Your task to perform on an android device: Search for pizza restaurants on Maps Image 0: 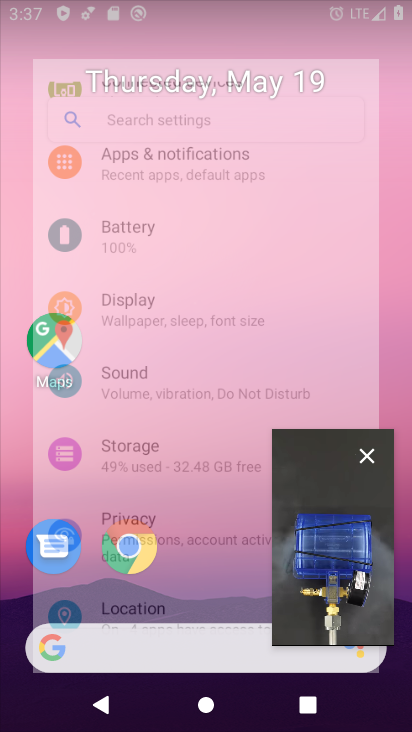
Step 0: press home button
Your task to perform on an android device: Search for pizza restaurants on Maps Image 1: 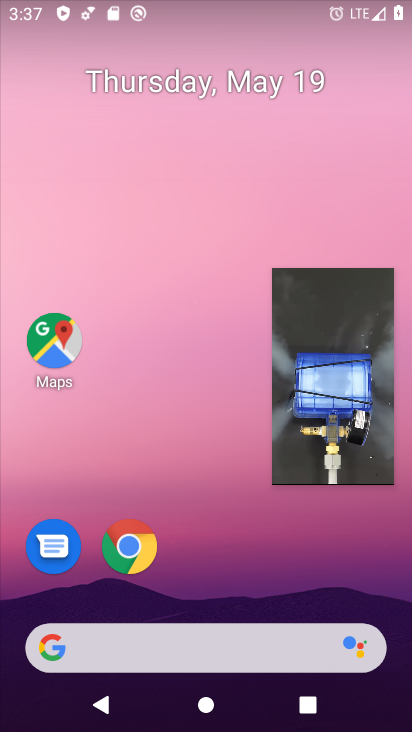
Step 1: click (326, 324)
Your task to perform on an android device: Search for pizza restaurants on Maps Image 2: 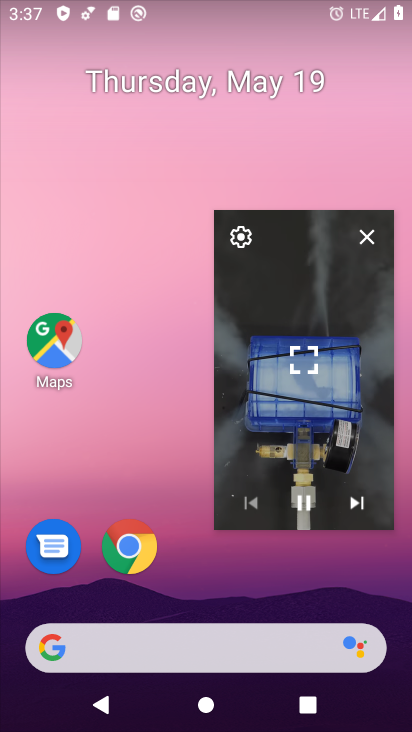
Step 2: click (363, 232)
Your task to perform on an android device: Search for pizza restaurants on Maps Image 3: 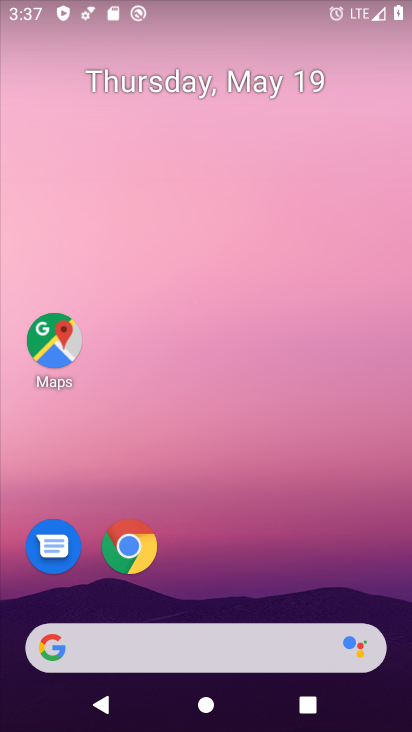
Step 3: click (52, 333)
Your task to perform on an android device: Search for pizza restaurants on Maps Image 4: 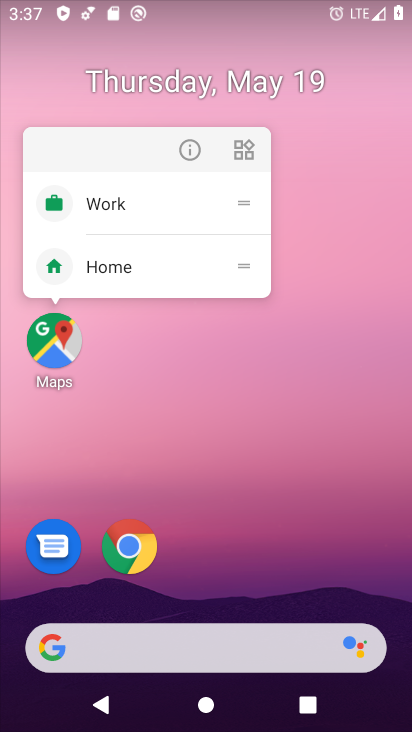
Step 4: click (53, 335)
Your task to perform on an android device: Search for pizza restaurants on Maps Image 5: 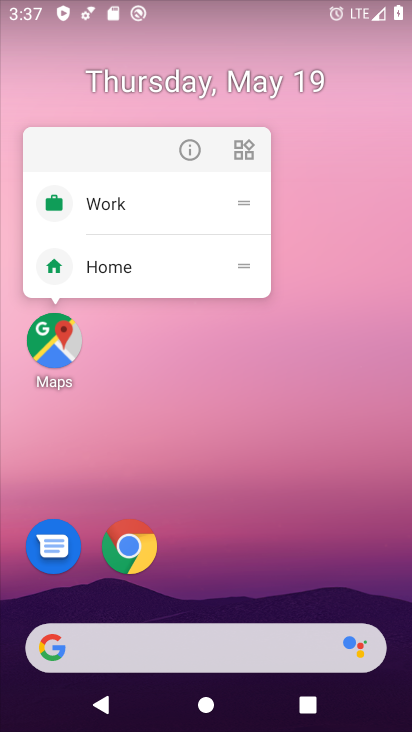
Step 5: click (53, 332)
Your task to perform on an android device: Search for pizza restaurants on Maps Image 6: 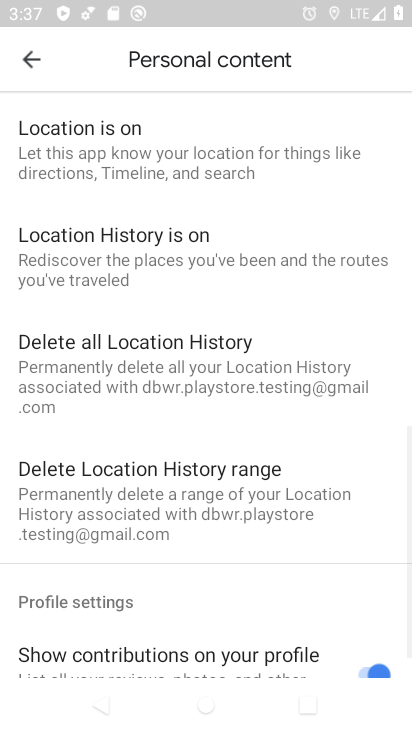
Step 6: click (31, 64)
Your task to perform on an android device: Search for pizza restaurants on Maps Image 7: 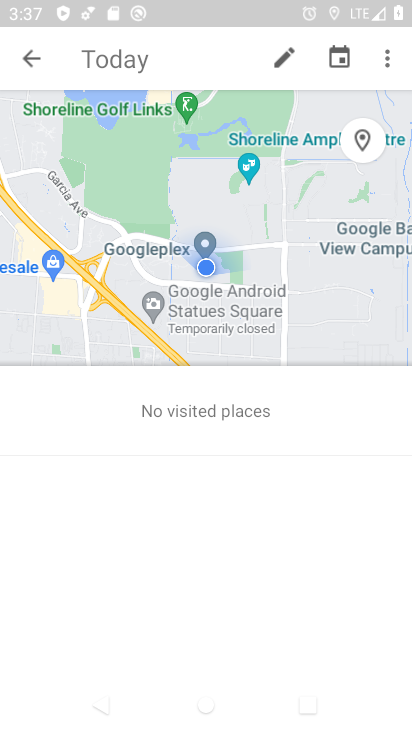
Step 7: click (31, 64)
Your task to perform on an android device: Search for pizza restaurants on Maps Image 8: 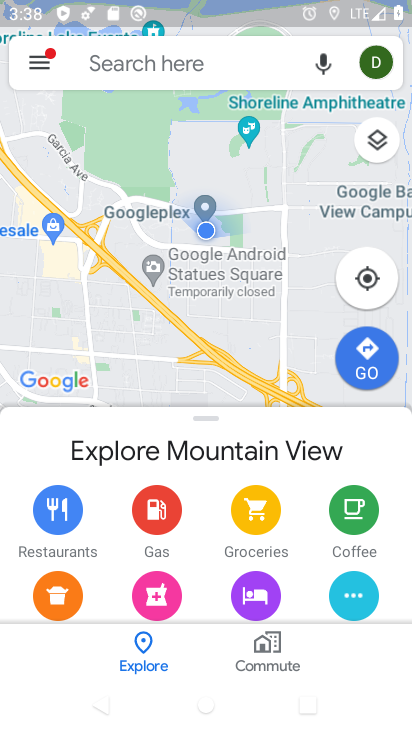
Step 8: click (128, 63)
Your task to perform on an android device: Search for pizza restaurants on Maps Image 9: 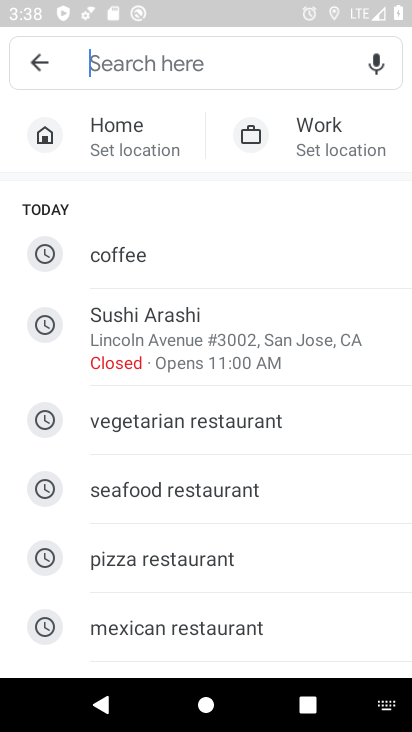
Step 9: click (187, 561)
Your task to perform on an android device: Search for pizza restaurants on Maps Image 10: 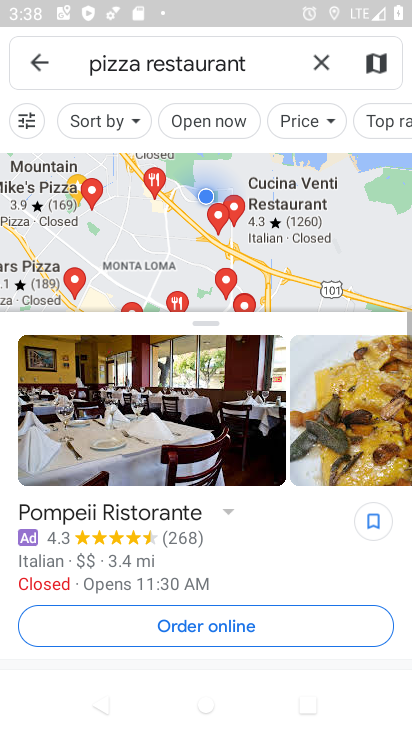
Step 10: task complete